Your task to perform on an android device: move an email to a new category in the gmail app Image 0: 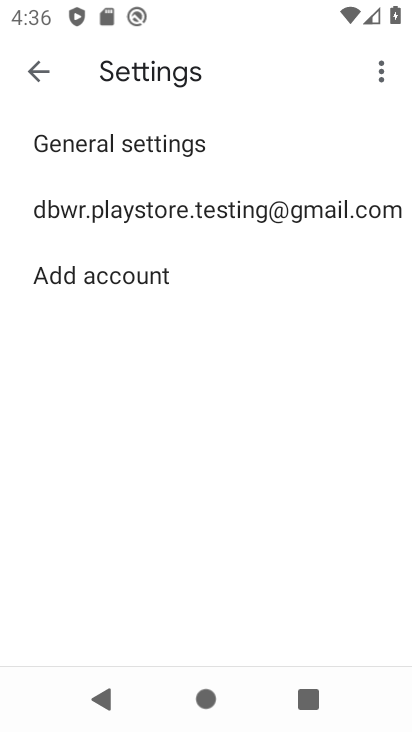
Step 0: press home button
Your task to perform on an android device: move an email to a new category in the gmail app Image 1: 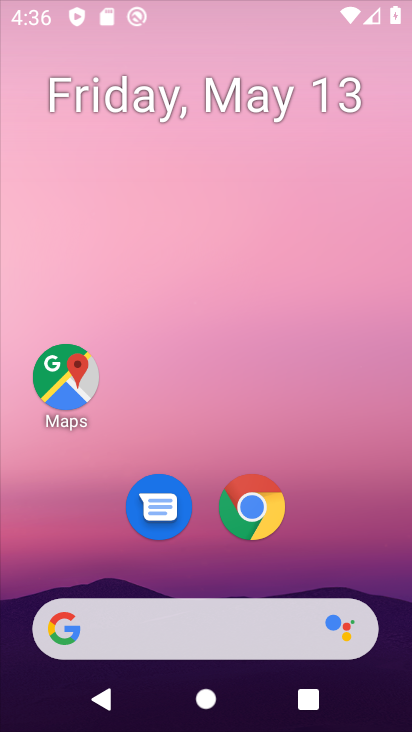
Step 1: click (225, 53)
Your task to perform on an android device: move an email to a new category in the gmail app Image 2: 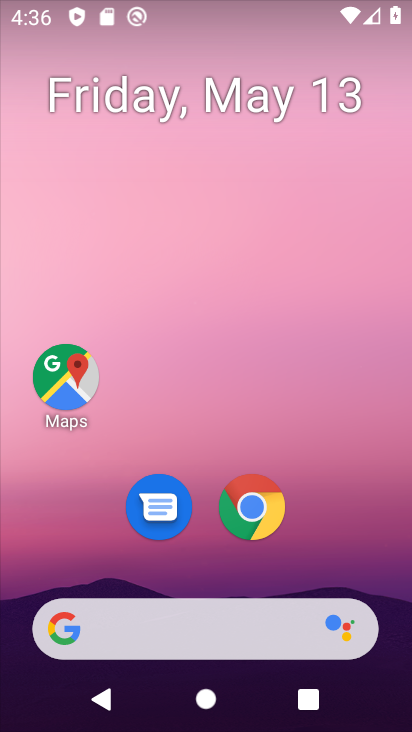
Step 2: drag from (348, 510) to (247, 10)
Your task to perform on an android device: move an email to a new category in the gmail app Image 3: 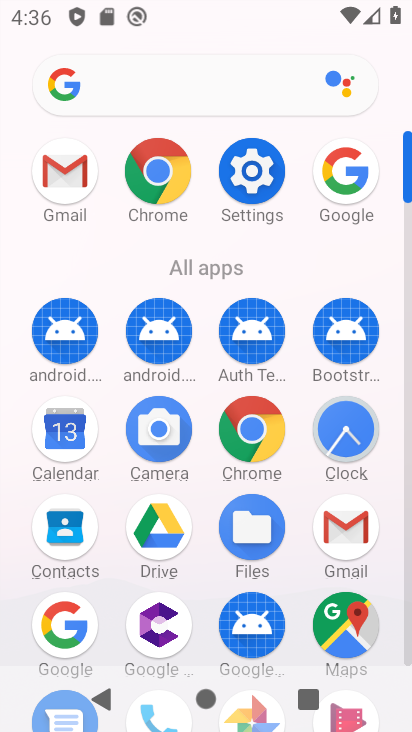
Step 3: click (351, 499)
Your task to perform on an android device: move an email to a new category in the gmail app Image 4: 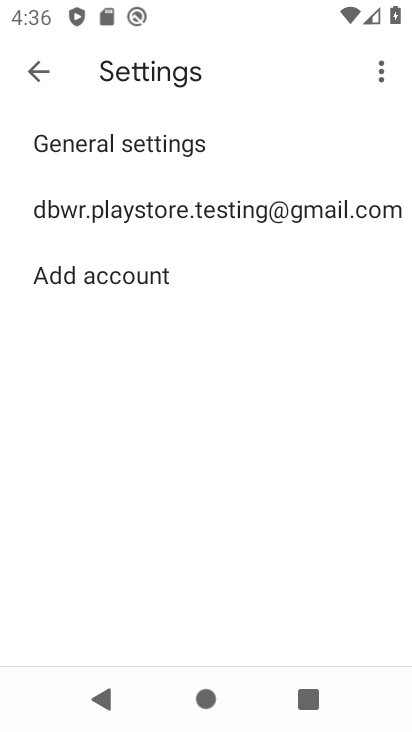
Step 4: click (36, 72)
Your task to perform on an android device: move an email to a new category in the gmail app Image 5: 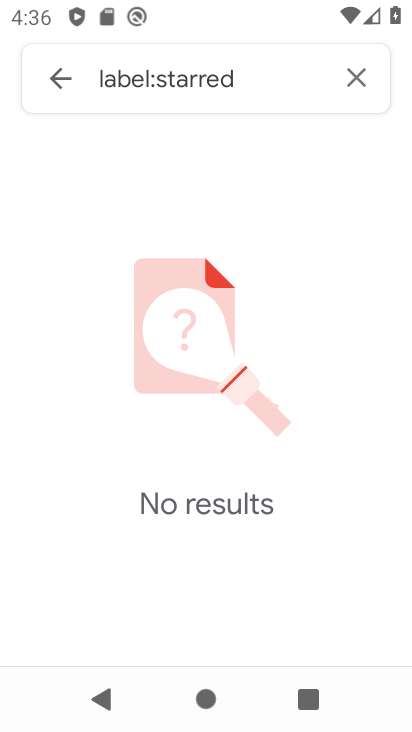
Step 5: click (355, 77)
Your task to perform on an android device: move an email to a new category in the gmail app Image 6: 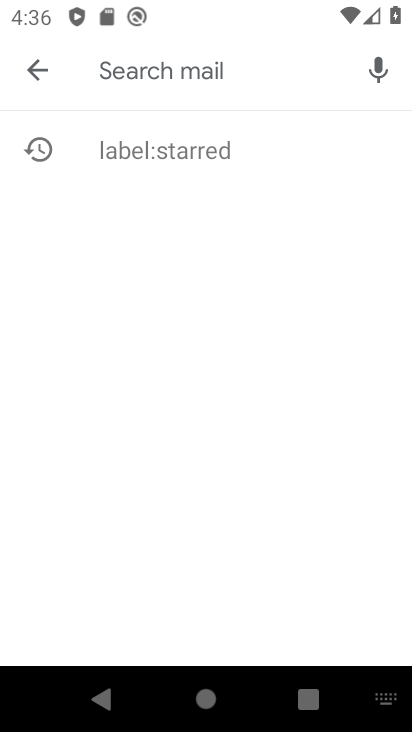
Step 6: click (36, 71)
Your task to perform on an android device: move an email to a new category in the gmail app Image 7: 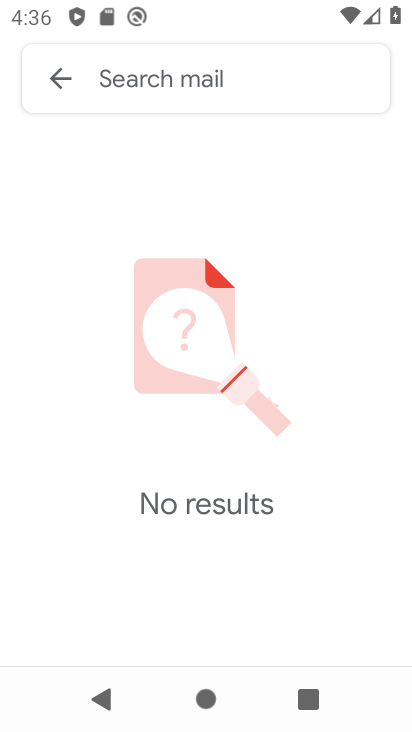
Step 7: click (56, 72)
Your task to perform on an android device: move an email to a new category in the gmail app Image 8: 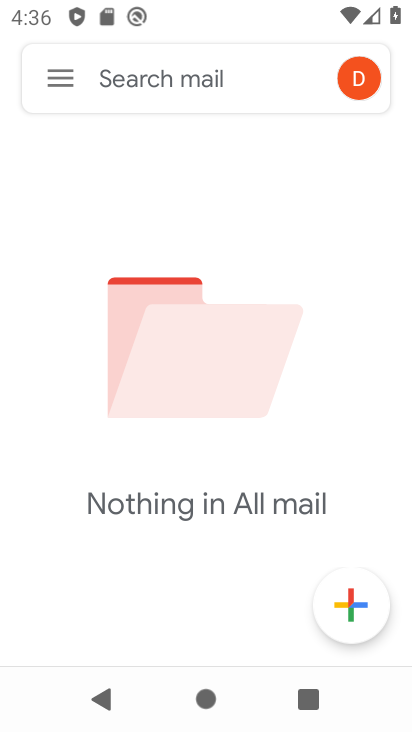
Step 8: task complete